Your task to perform on an android device: change notifications settings Image 0: 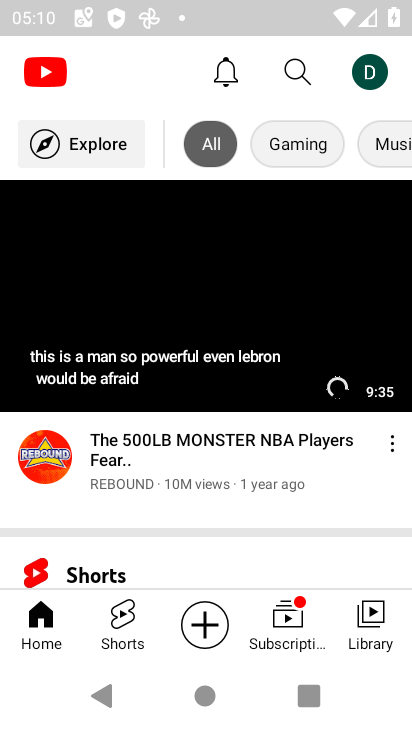
Step 0: press back button
Your task to perform on an android device: change notifications settings Image 1: 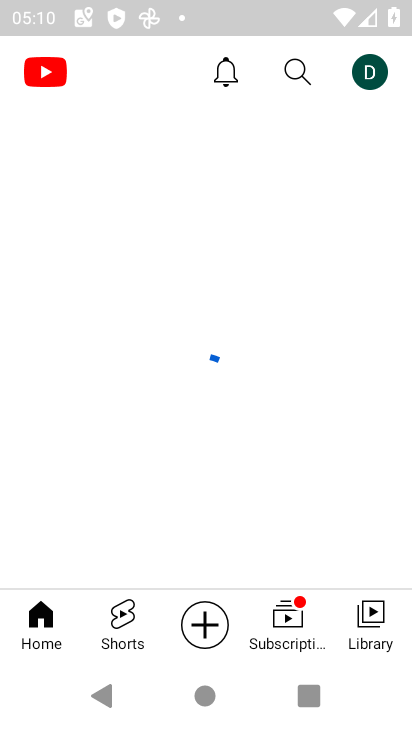
Step 1: press back button
Your task to perform on an android device: change notifications settings Image 2: 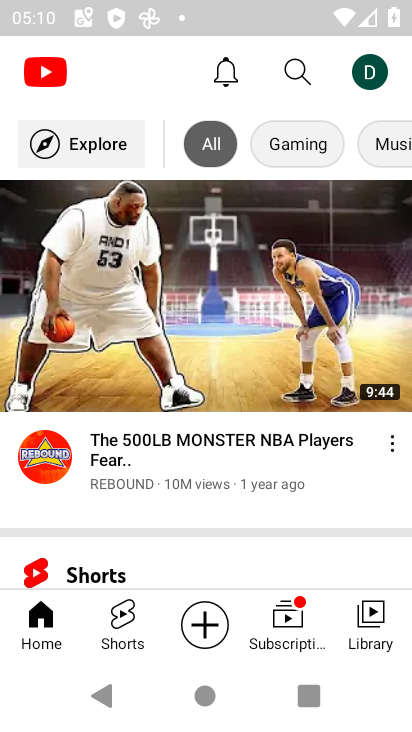
Step 2: press back button
Your task to perform on an android device: change notifications settings Image 3: 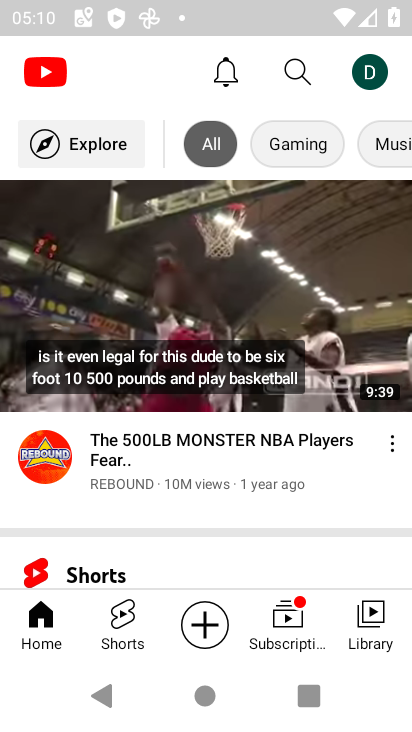
Step 3: press back button
Your task to perform on an android device: change notifications settings Image 4: 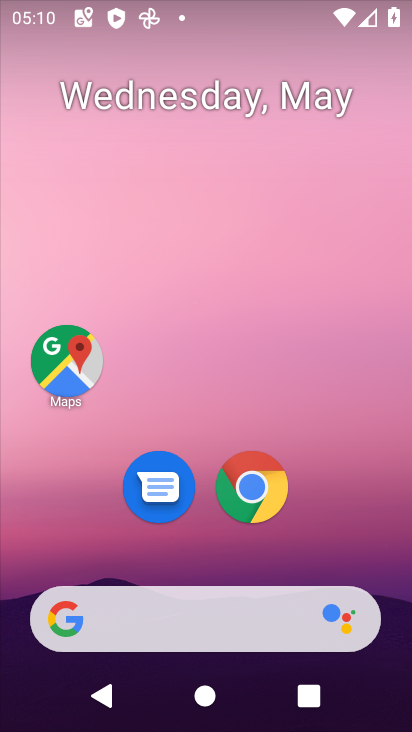
Step 4: drag from (337, 532) to (361, 152)
Your task to perform on an android device: change notifications settings Image 5: 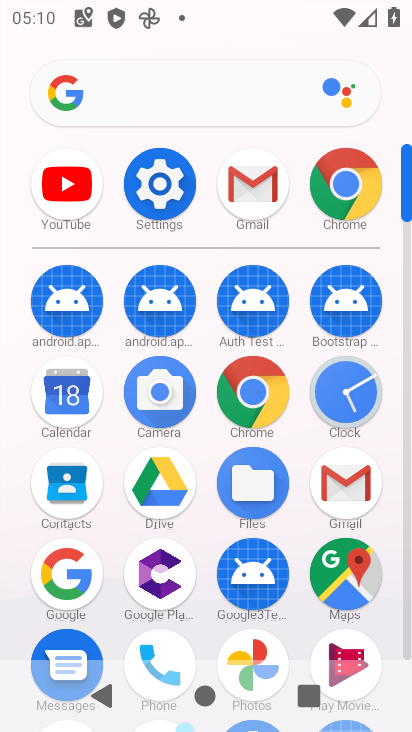
Step 5: click (153, 203)
Your task to perform on an android device: change notifications settings Image 6: 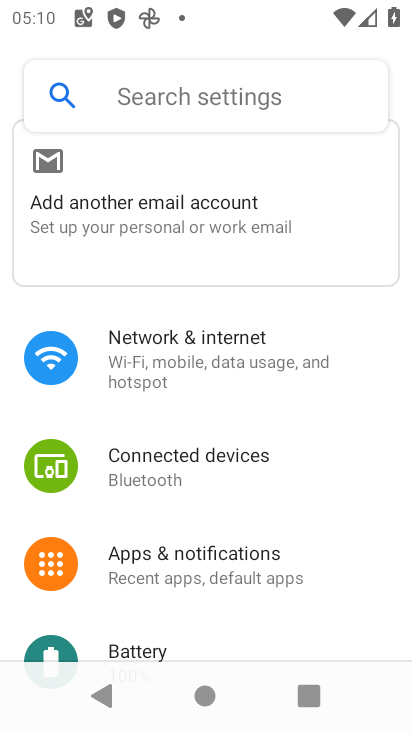
Step 6: drag from (160, 658) to (214, 367)
Your task to perform on an android device: change notifications settings Image 7: 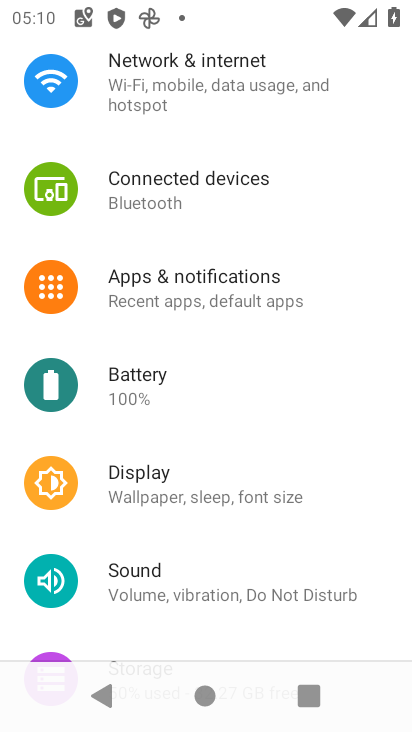
Step 7: drag from (190, 567) to (191, 467)
Your task to perform on an android device: change notifications settings Image 8: 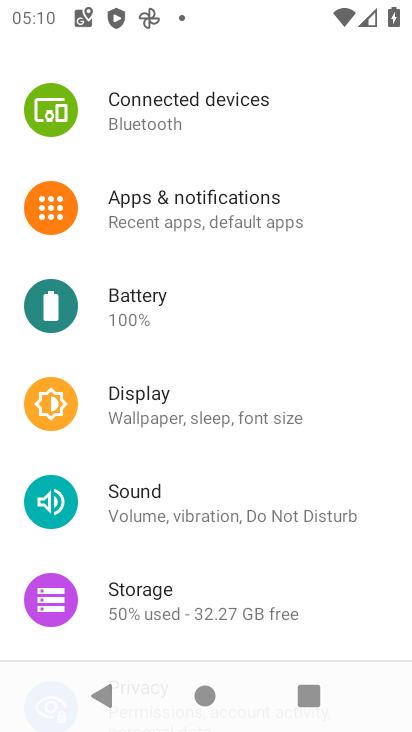
Step 8: click (219, 215)
Your task to perform on an android device: change notifications settings Image 9: 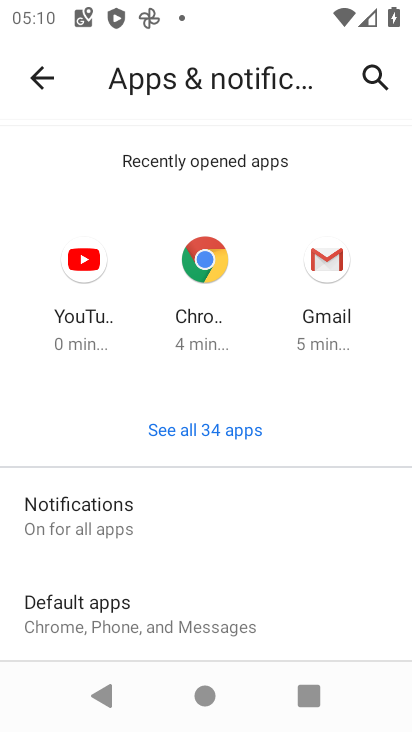
Step 9: task complete